Your task to perform on an android device: check out phone information Image 0: 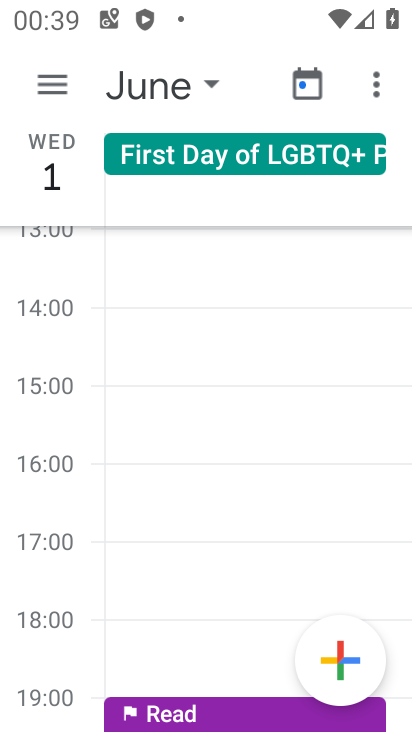
Step 0: press home button
Your task to perform on an android device: check out phone information Image 1: 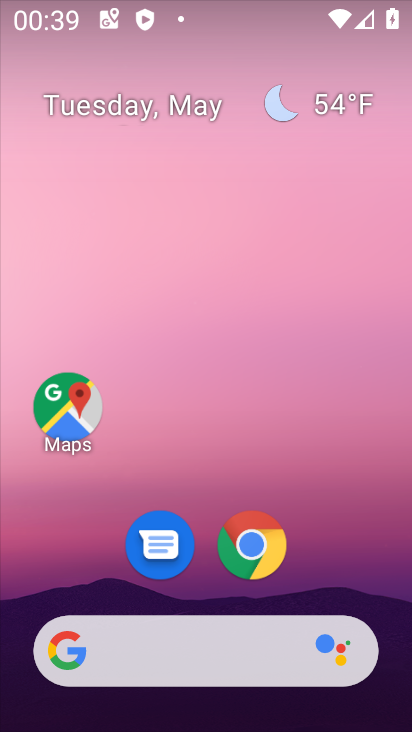
Step 1: drag from (322, 579) to (304, 115)
Your task to perform on an android device: check out phone information Image 2: 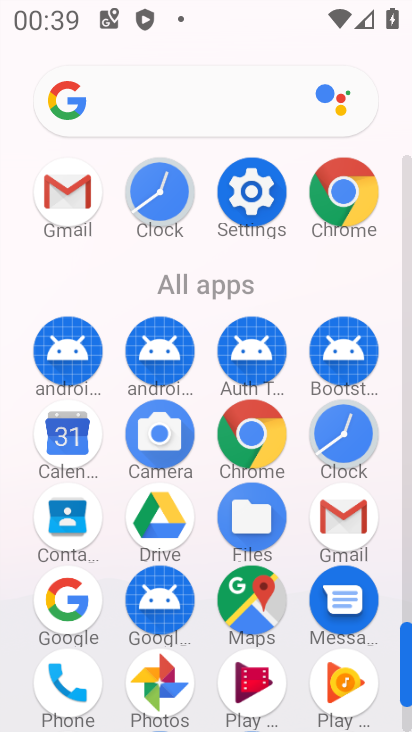
Step 2: click (229, 208)
Your task to perform on an android device: check out phone information Image 3: 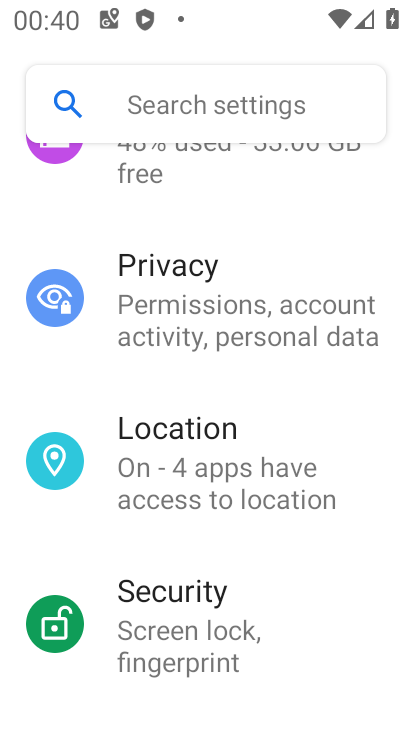
Step 3: drag from (231, 653) to (272, 109)
Your task to perform on an android device: check out phone information Image 4: 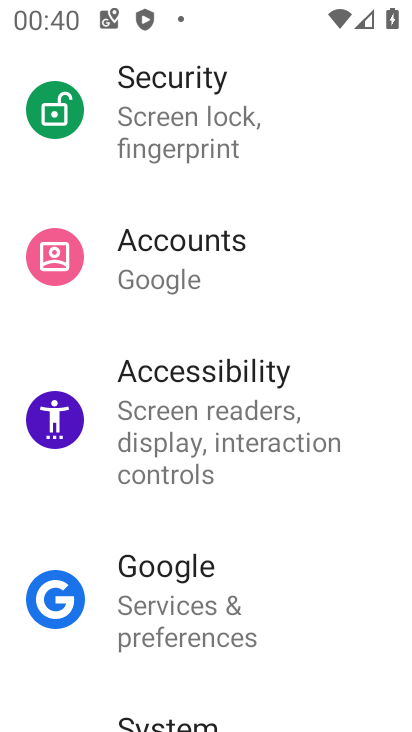
Step 4: drag from (270, 629) to (300, 128)
Your task to perform on an android device: check out phone information Image 5: 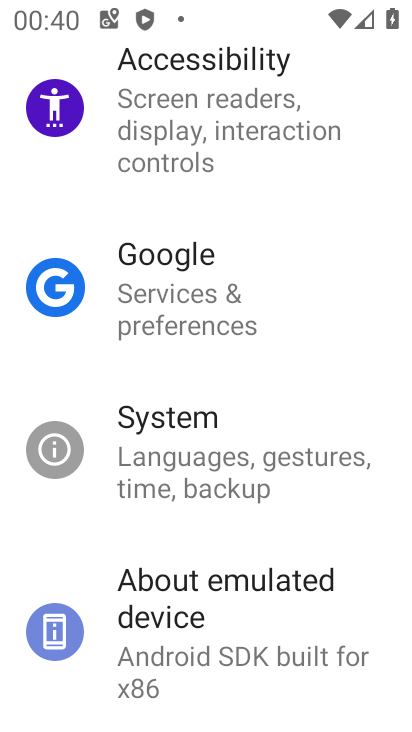
Step 5: drag from (252, 599) to (252, 135)
Your task to perform on an android device: check out phone information Image 6: 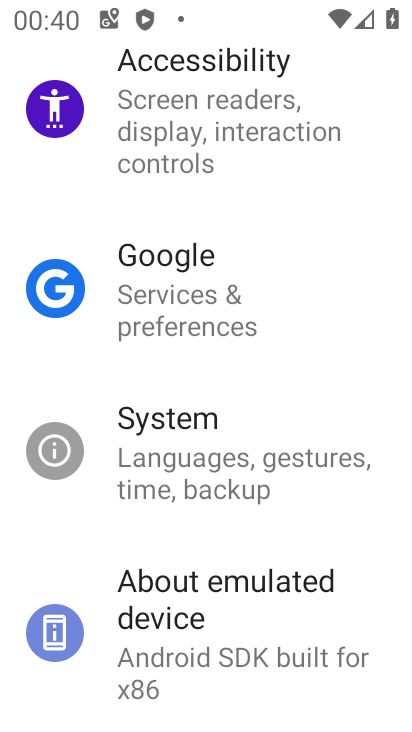
Step 6: click (248, 610)
Your task to perform on an android device: check out phone information Image 7: 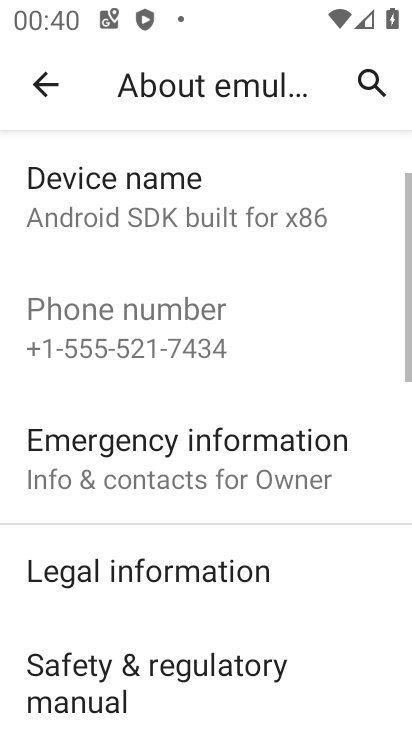
Step 7: task complete